Your task to perform on an android device: Go to calendar. Show me events next week Image 0: 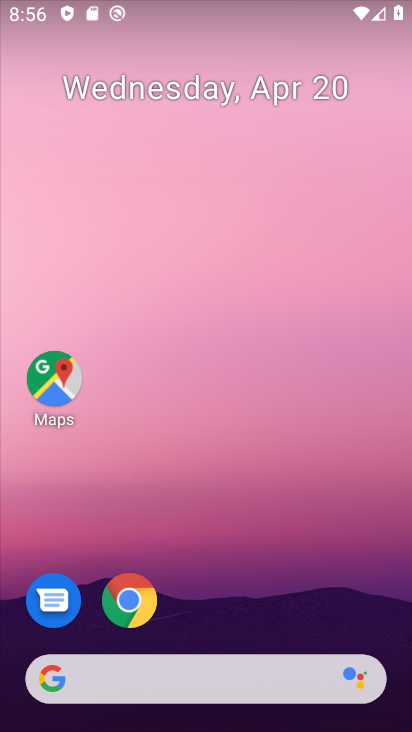
Step 0: click (166, 93)
Your task to perform on an android device: Go to calendar. Show me events next week Image 1: 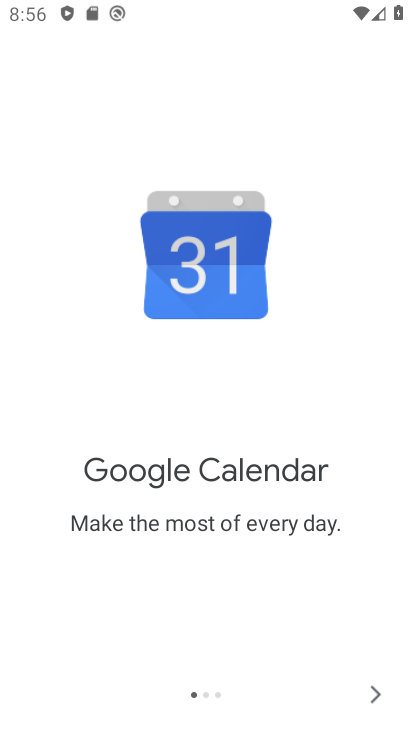
Step 1: click (372, 702)
Your task to perform on an android device: Go to calendar. Show me events next week Image 2: 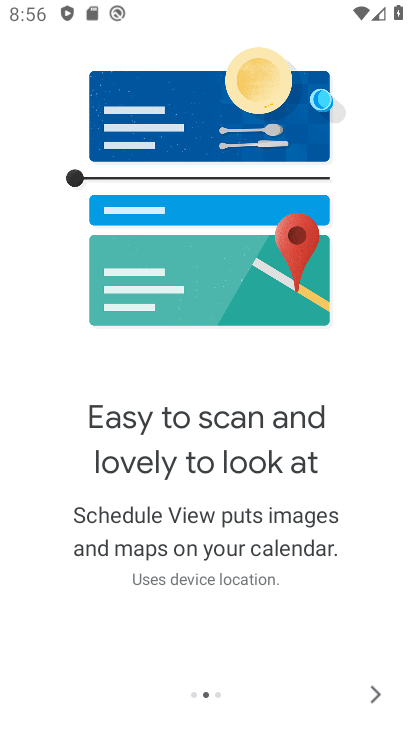
Step 2: click (372, 702)
Your task to perform on an android device: Go to calendar. Show me events next week Image 3: 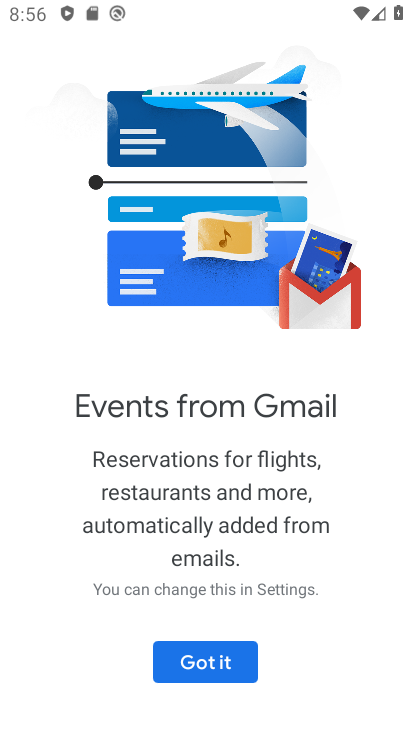
Step 3: click (169, 658)
Your task to perform on an android device: Go to calendar. Show me events next week Image 4: 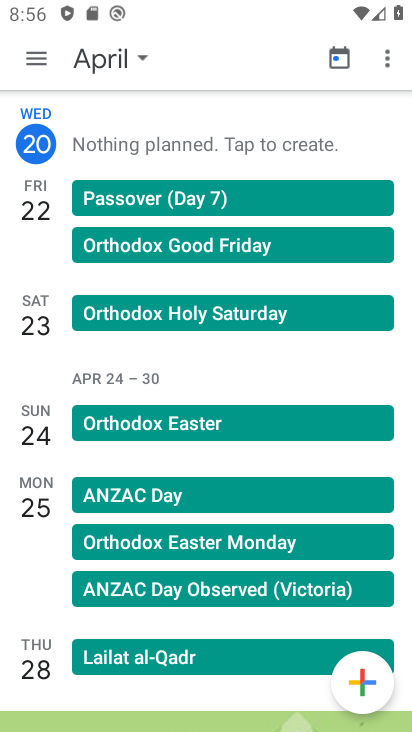
Step 4: click (131, 58)
Your task to perform on an android device: Go to calendar. Show me events next week Image 5: 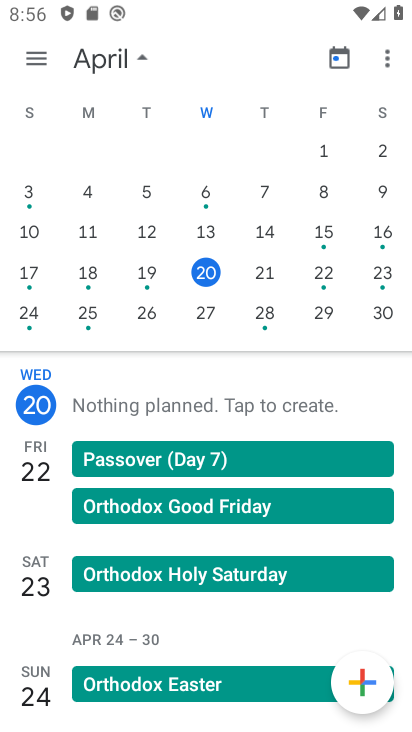
Step 5: click (150, 311)
Your task to perform on an android device: Go to calendar. Show me events next week Image 6: 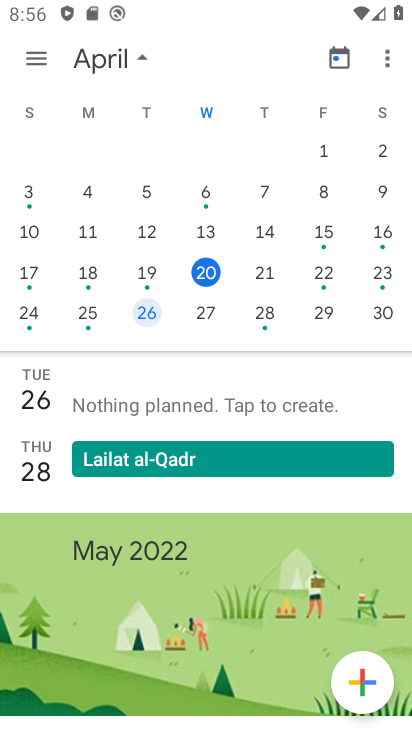
Step 6: task complete